Your task to perform on an android device: Go to accessibility settings Image 0: 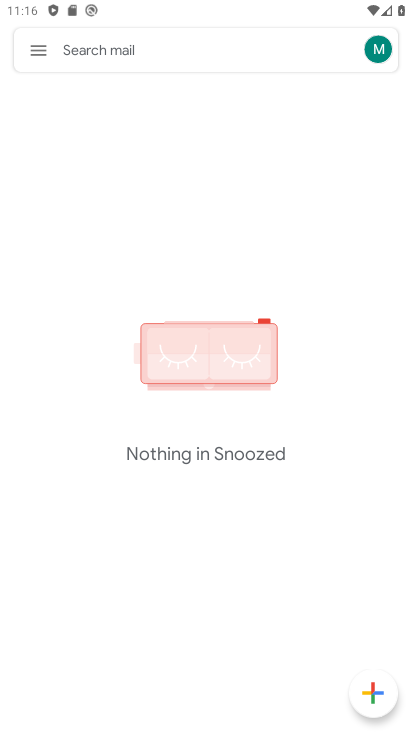
Step 0: press home button
Your task to perform on an android device: Go to accessibility settings Image 1: 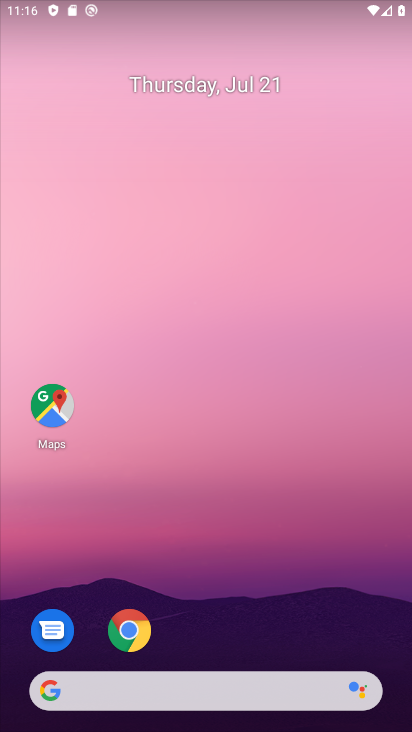
Step 1: drag from (194, 654) to (194, 155)
Your task to perform on an android device: Go to accessibility settings Image 2: 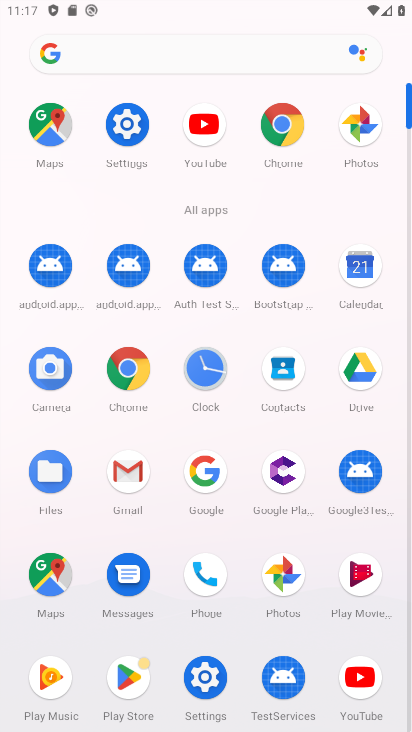
Step 2: click (192, 680)
Your task to perform on an android device: Go to accessibility settings Image 3: 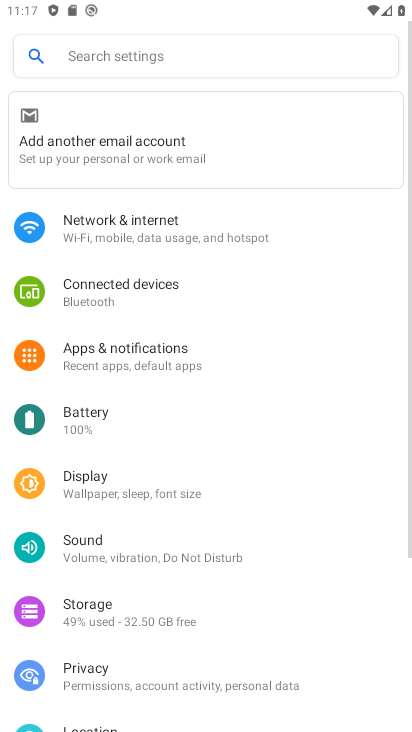
Step 3: drag from (189, 621) to (190, 157)
Your task to perform on an android device: Go to accessibility settings Image 4: 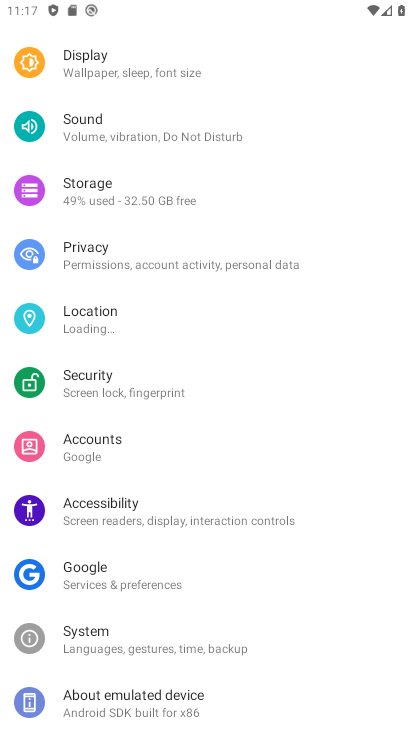
Step 4: drag from (127, 625) to (156, 212)
Your task to perform on an android device: Go to accessibility settings Image 5: 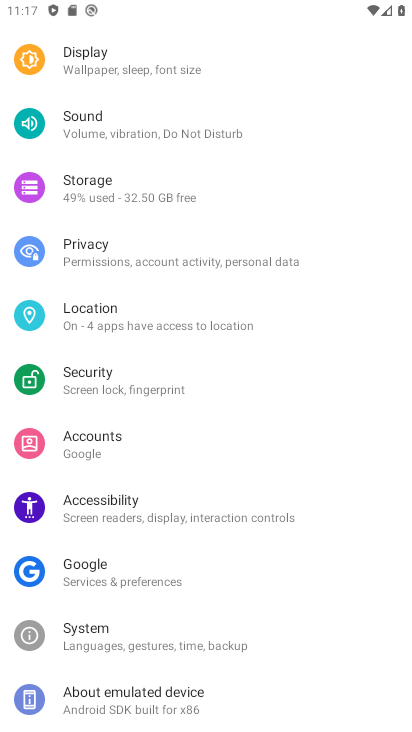
Step 5: click (85, 513)
Your task to perform on an android device: Go to accessibility settings Image 6: 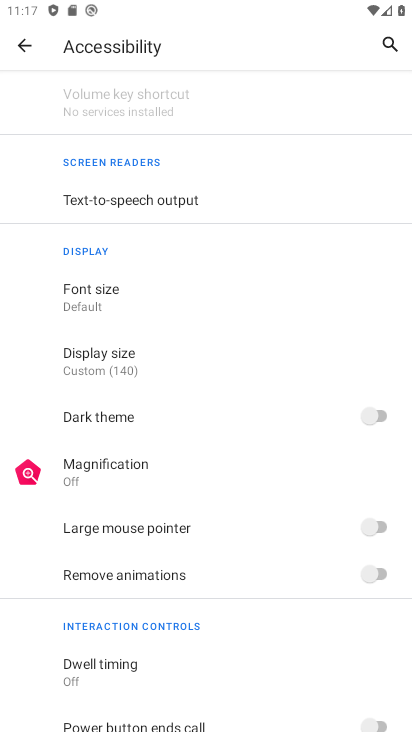
Step 6: task complete